Your task to perform on an android device: turn on showing notifications on the lock screen Image 0: 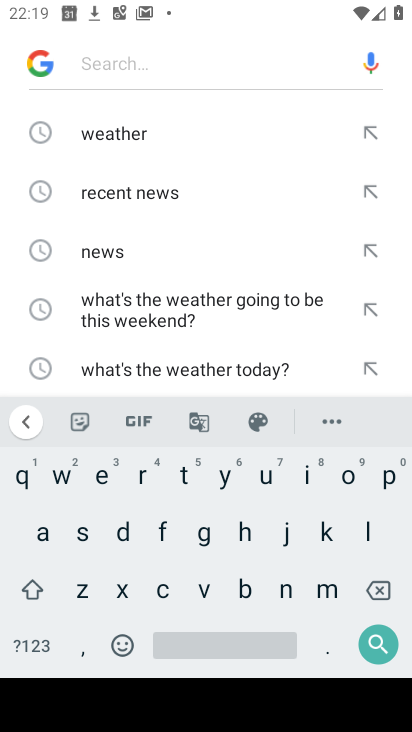
Step 0: press home button
Your task to perform on an android device: turn on showing notifications on the lock screen Image 1: 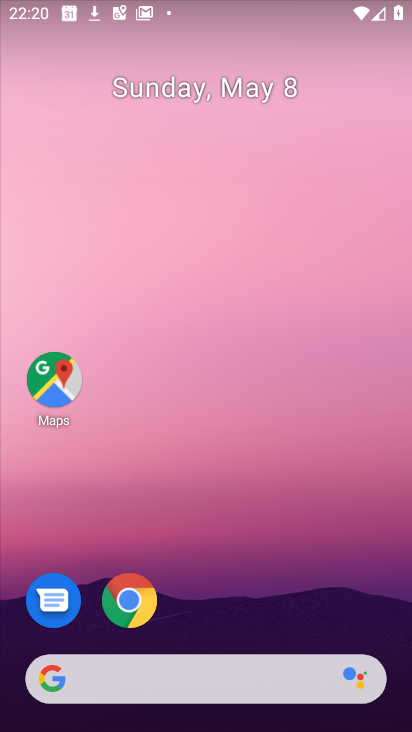
Step 1: drag from (250, 690) to (266, 342)
Your task to perform on an android device: turn on showing notifications on the lock screen Image 2: 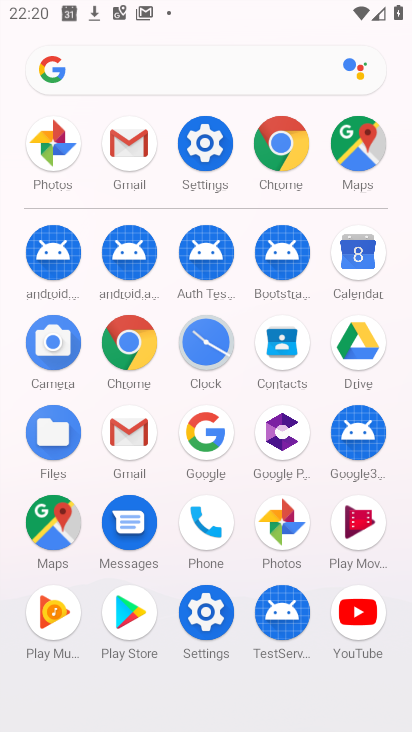
Step 2: click (196, 613)
Your task to perform on an android device: turn on showing notifications on the lock screen Image 3: 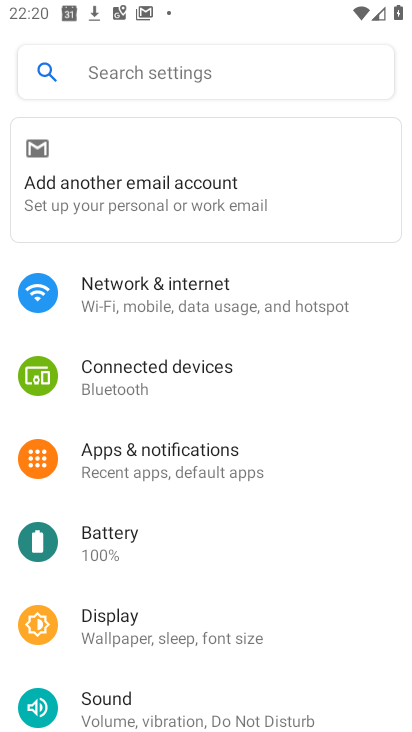
Step 3: click (174, 69)
Your task to perform on an android device: turn on showing notifications on the lock screen Image 4: 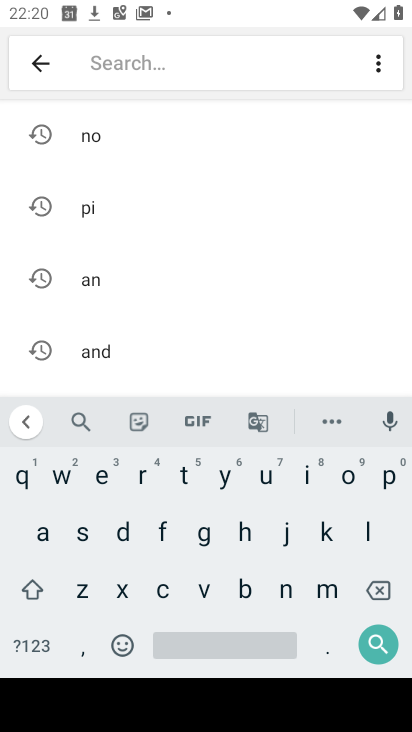
Step 4: click (131, 137)
Your task to perform on an android device: turn on showing notifications on the lock screen Image 5: 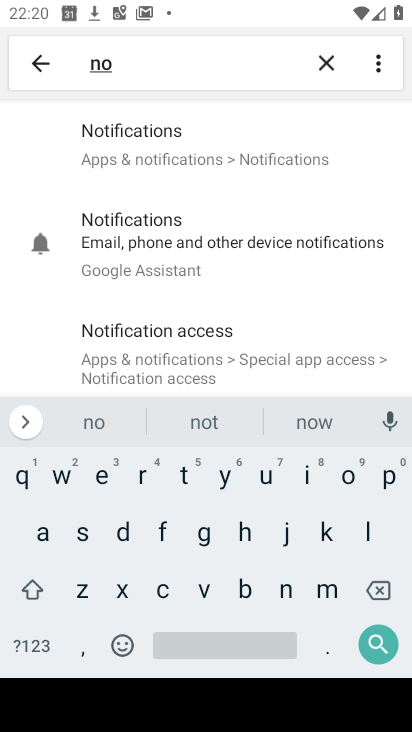
Step 5: click (129, 151)
Your task to perform on an android device: turn on showing notifications on the lock screen Image 6: 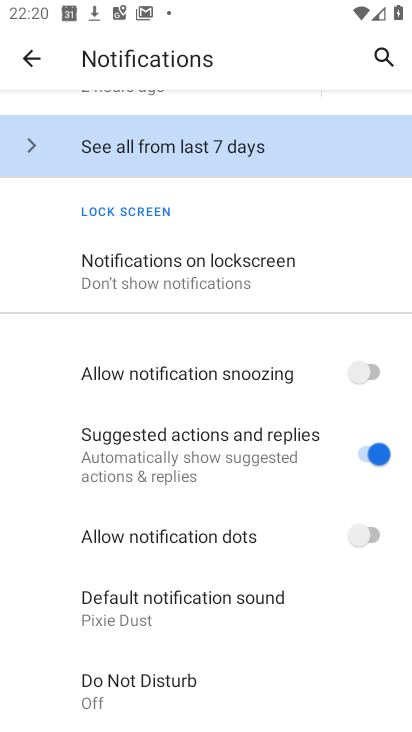
Step 6: click (136, 246)
Your task to perform on an android device: turn on showing notifications on the lock screen Image 7: 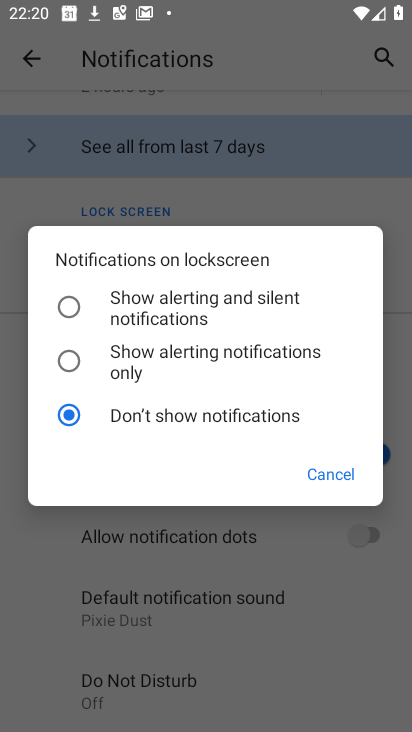
Step 7: click (140, 301)
Your task to perform on an android device: turn on showing notifications on the lock screen Image 8: 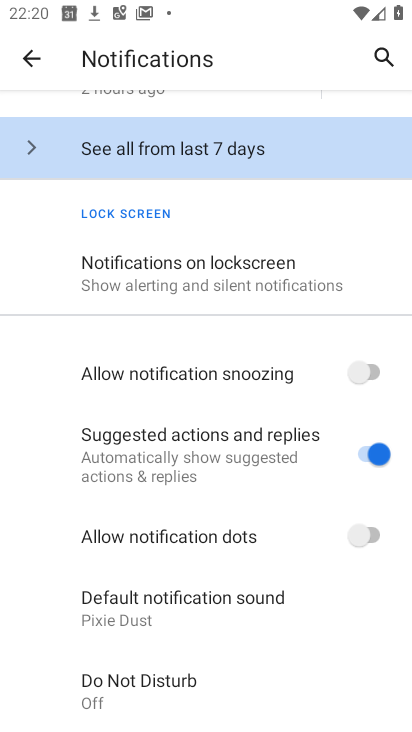
Step 8: task complete